Your task to perform on an android device: Go to Android settings Image 0: 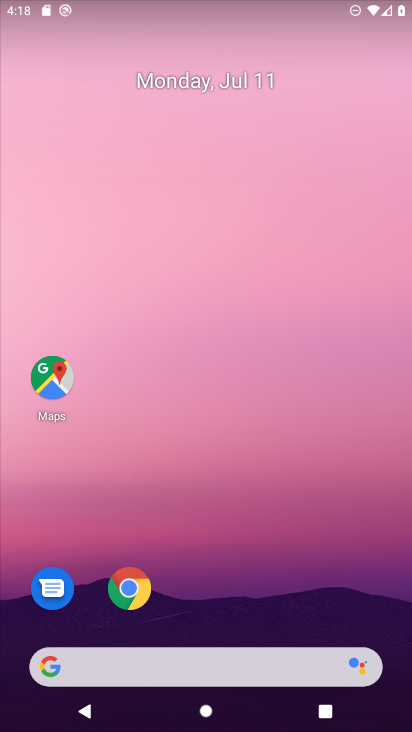
Step 0: drag from (156, 570) to (114, 59)
Your task to perform on an android device: Go to Android settings Image 1: 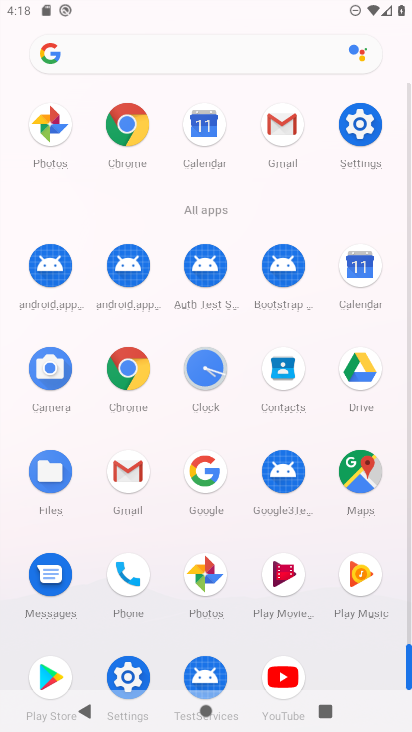
Step 1: click (368, 134)
Your task to perform on an android device: Go to Android settings Image 2: 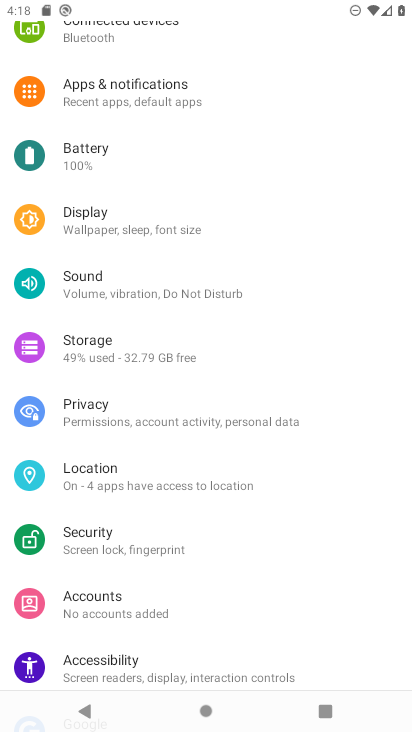
Step 2: drag from (211, 638) to (317, 44)
Your task to perform on an android device: Go to Android settings Image 3: 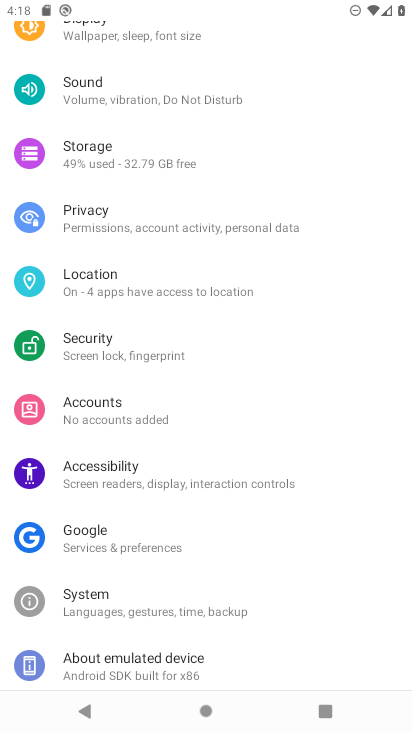
Step 3: click (183, 669)
Your task to perform on an android device: Go to Android settings Image 4: 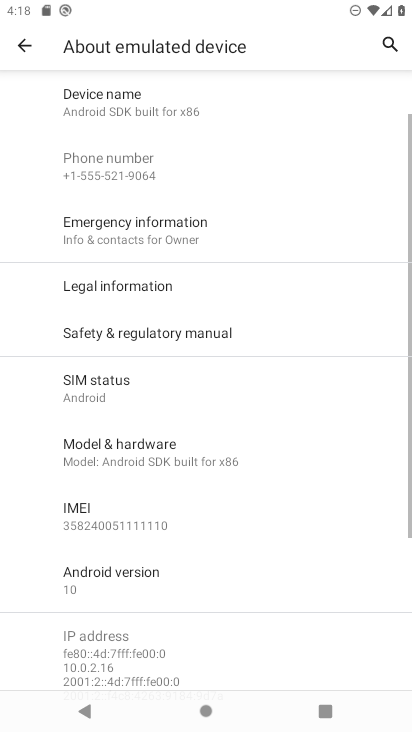
Step 4: task complete